Your task to perform on an android device: toggle sleep mode Image 0: 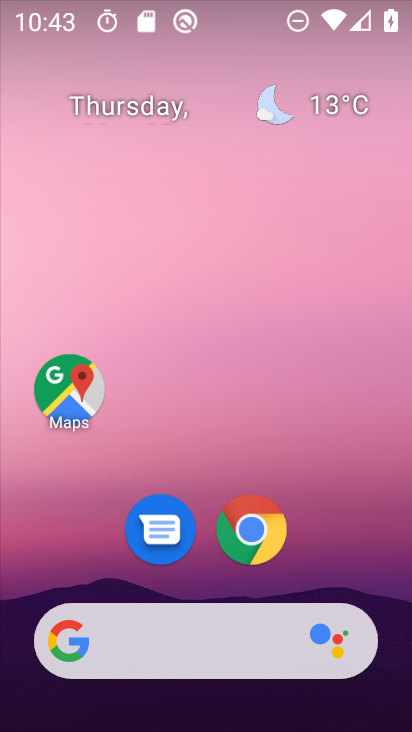
Step 0: drag from (337, 523) to (395, 62)
Your task to perform on an android device: toggle sleep mode Image 1: 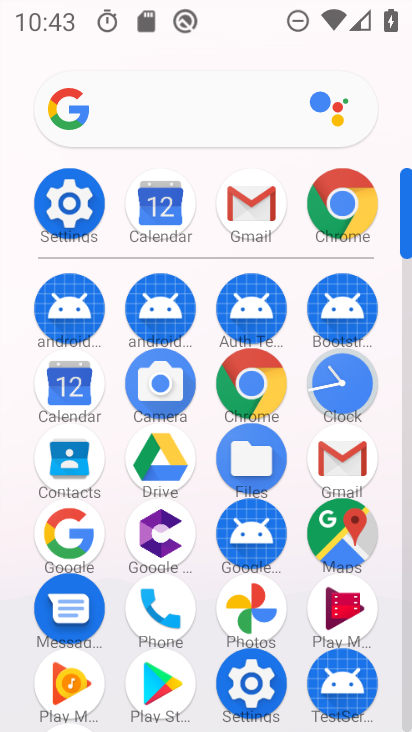
Step 1: click (74, 208)
Your task to perform on an android device: toggle sleep mode Image 2: 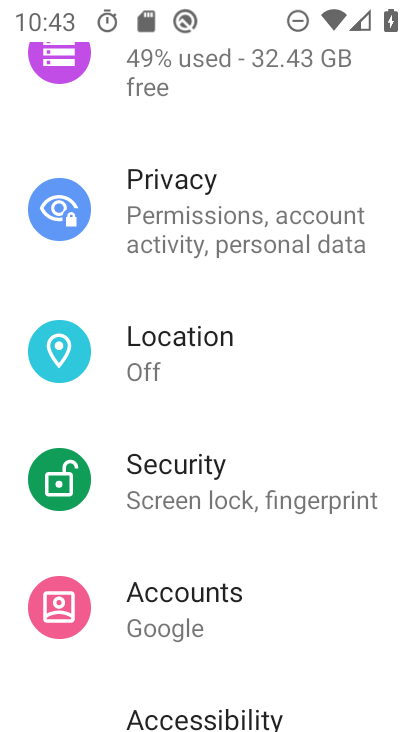
Step 2: drag from (333, 141) to (231, 559)
Your task to perform on an android device: toggle sleep mode Image 3: 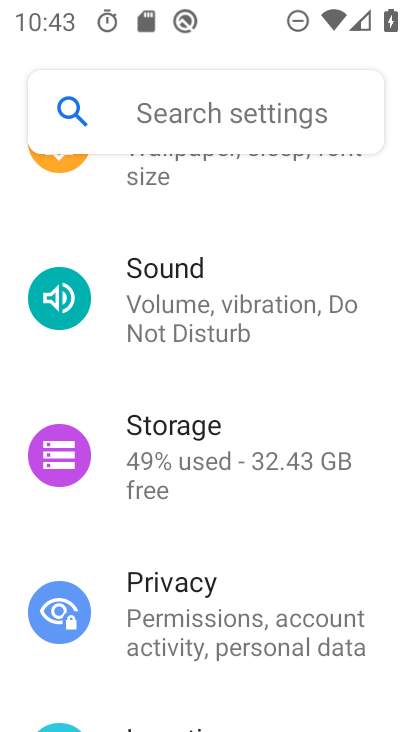
Step 3: drag from (290, 337) to (193, 597)
Your task to perform on an android device: toggle sleep mode Image 4: 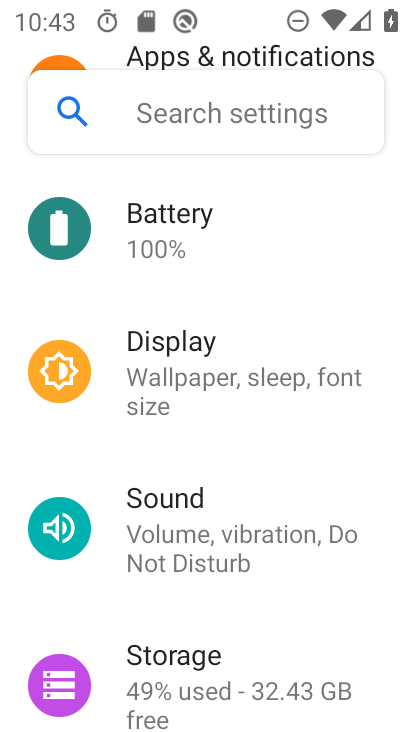
Step 4: click (283, 369)
Your task to perform on an android device: toggle sleep mode Image 5: 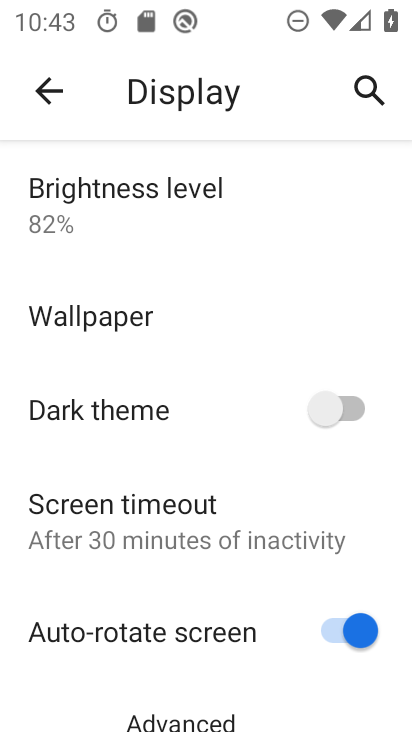
Step 5: drag from (144, 653) to (264, 232)
Your task to perform on an android device: toggle sleep mode Image 6: 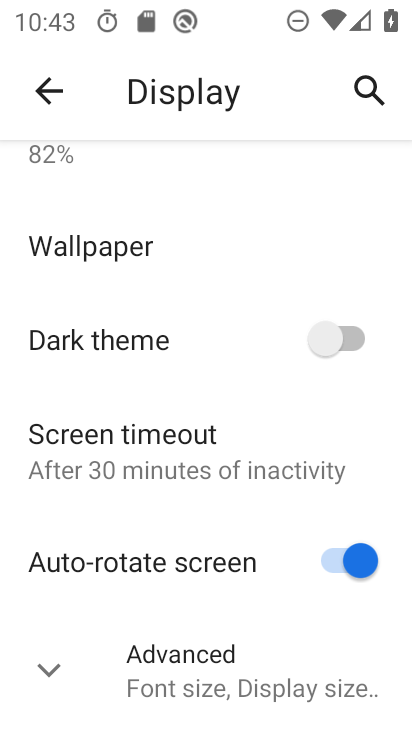
Step 6: click (94, 655)
Your task to perform on an android device: toggle sleep mode Image 7: 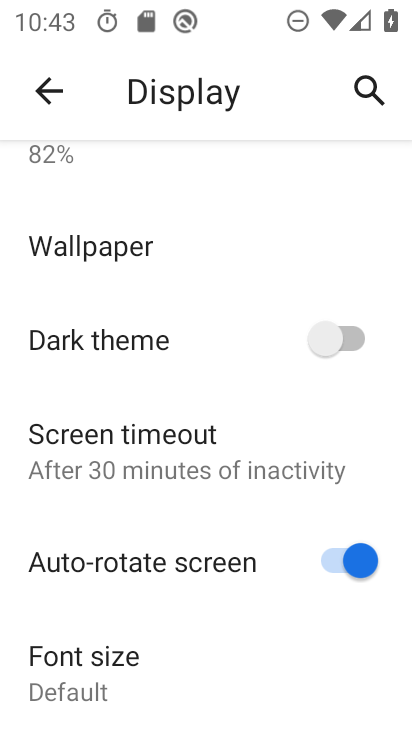
Step 7: task complete